Your task to perform on an android device: turn pop-ups off in chrome Image 0: 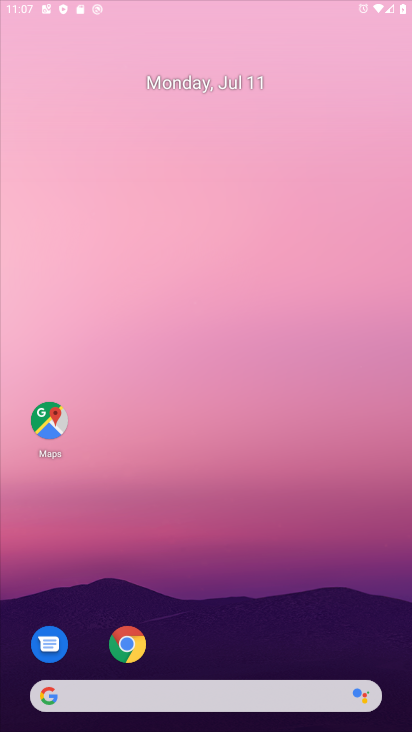
Step 0: press home button
Your task to perform on an android device: turn pop-ups off in chrome Image 1: 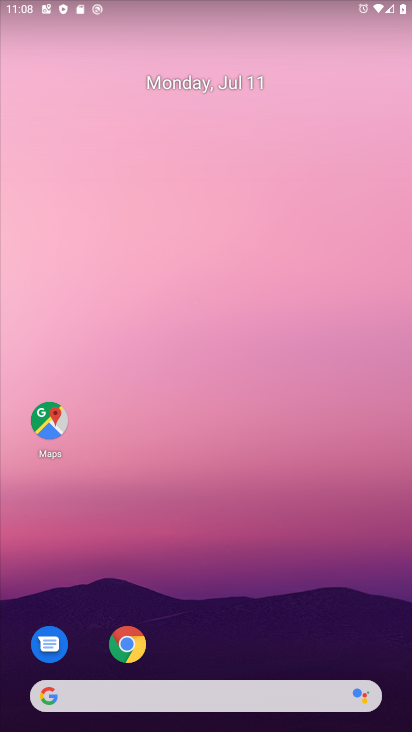
Step 1: click (125, 640)
Your task to perform on an android device: turn pop-ups off in chrome Image 2: 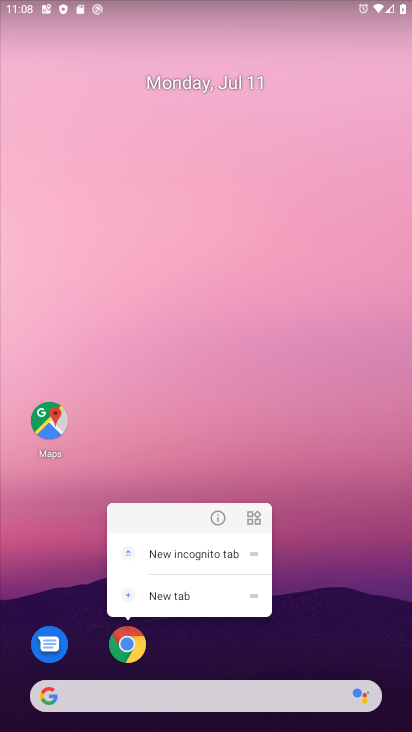
Step 2: click (125, 640)
Your task to perform on an android device: turn pop-ups off in chrome Image 3: 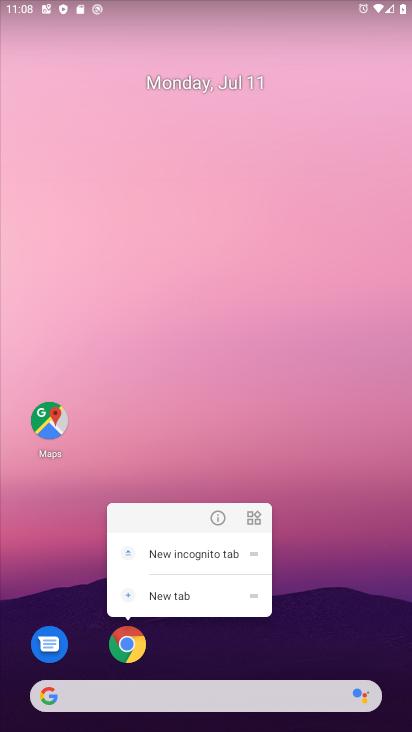
Step 3: click (125, 640)
Your task to perform on an android device: turn pop-ups off in chrome Image 4: 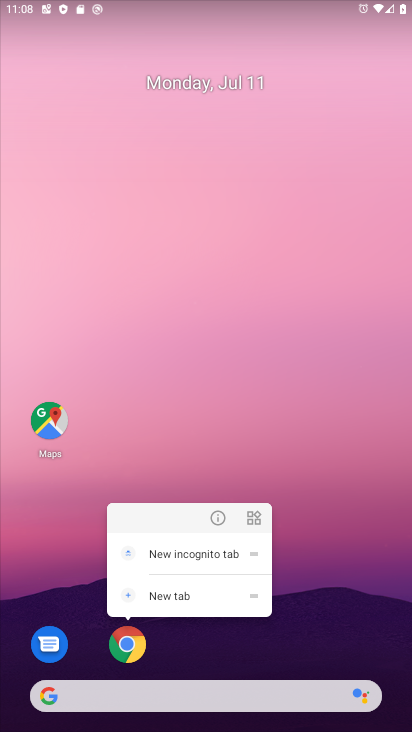
Step 4: click (127, 640)
Your task to perform on an android device: turn pop-ups off in chrome Image 5: 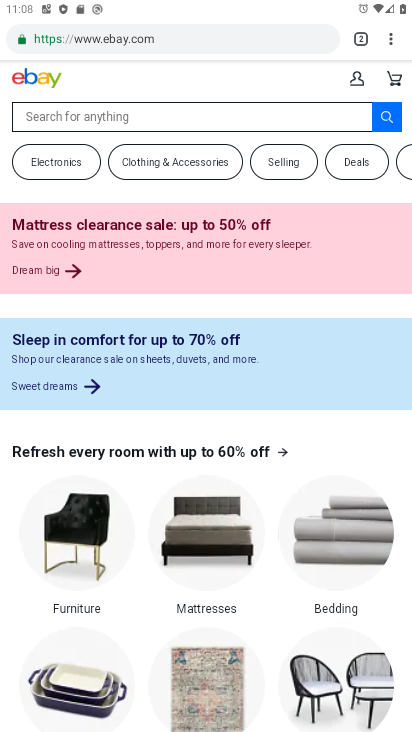
Step 5: click (387, 36)
Your task to perform on an android device: turn pop-ups off in chrome Image 6: 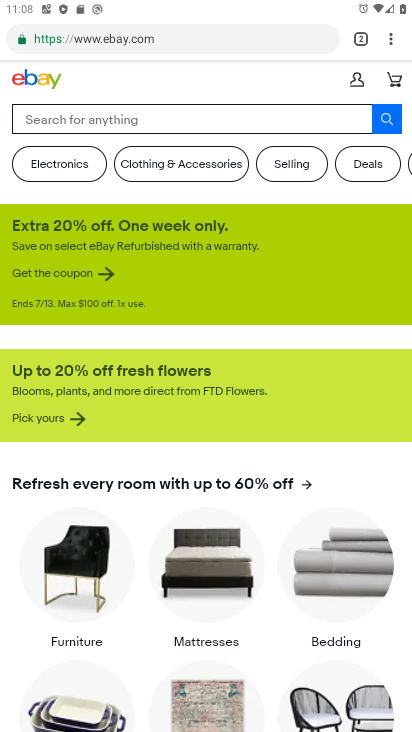
Step 6: click (390, 35)
Your task to perform on an android device: turn pop-ups off in chrome Image 7: 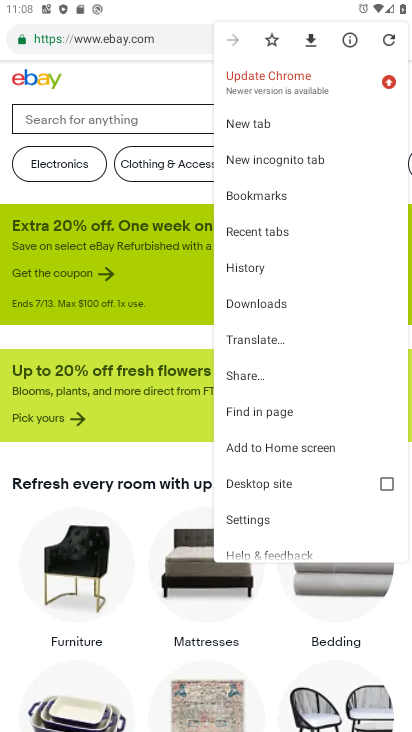
Step 7: click (281, 517)
Your task to perform on an android device: turn pop-ups off in chrome Image 8: 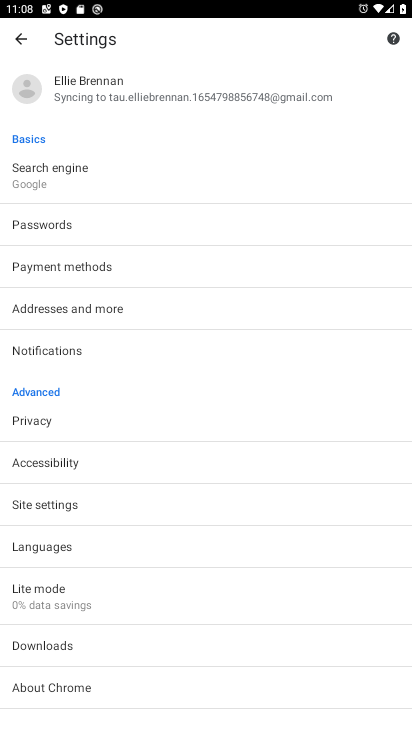
Step 8: click (101, 498)
Your task to perform on an android device: turn pop-ups off in chrome Image 9: 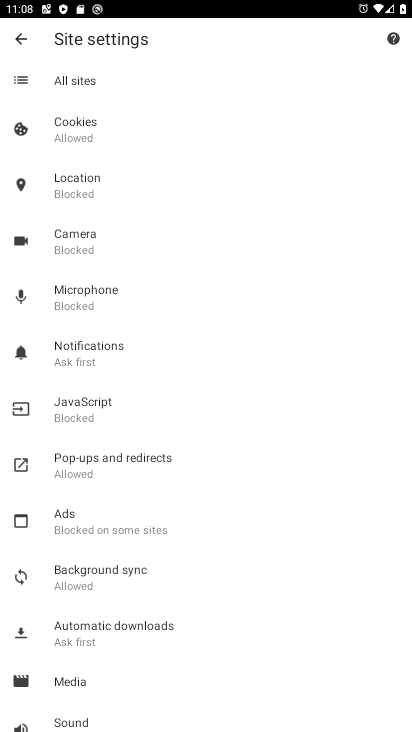
Step 9: click (127, 465)
Your task to perform on an android device: turn pop-ups off in chrome Image 10: 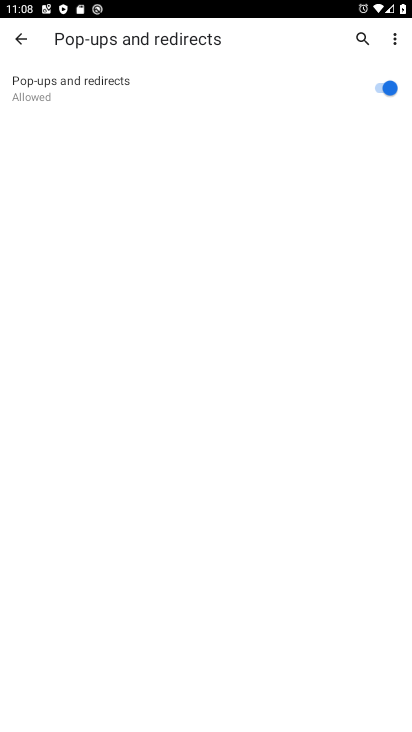
Step 10: click (385, 85)
Your task to perform on an android device: turn pop-ups off in chrome Image 11: 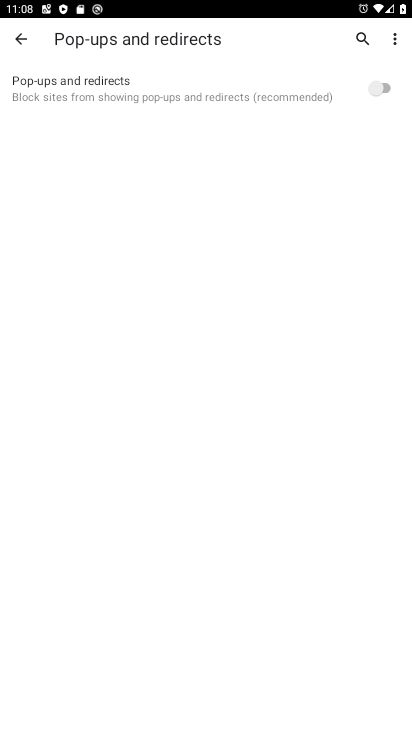
Step 11: task complete